Your task to perform on an android device: Check the news Image 0: 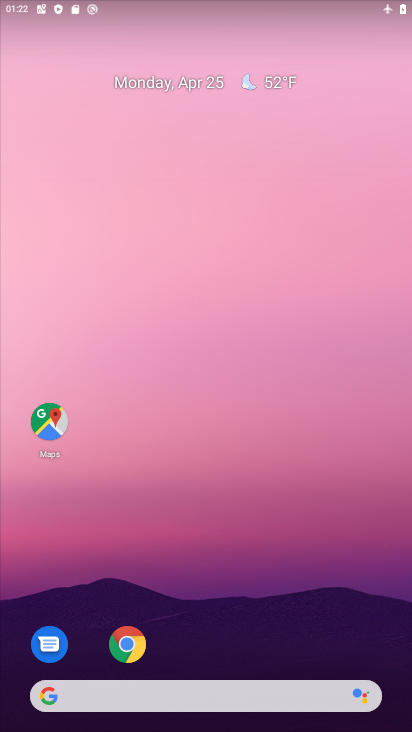
Step 0: drag from (205, 632) to (212, 83)
Your task to perform on an android device: Check the news Image 1: 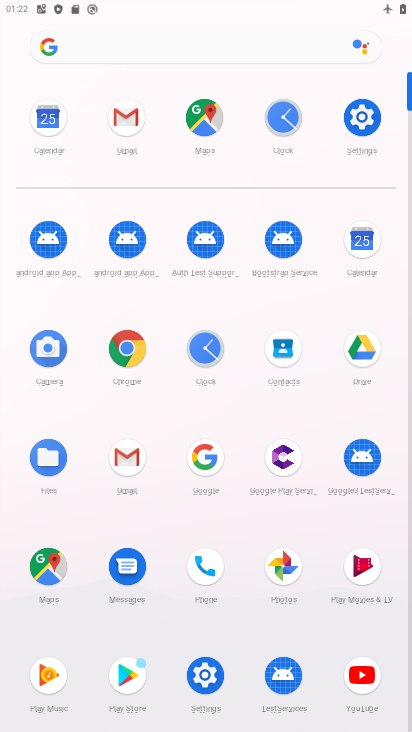
Step 1: click (115, 341)
Your task to perform on an android device: Check the news Image 2: 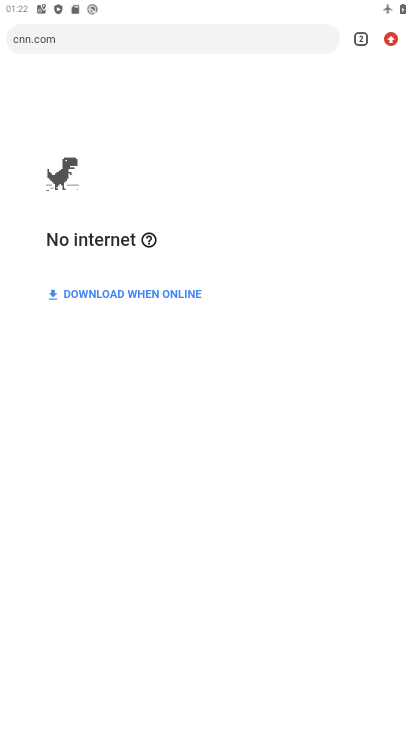
Step 2: task complete